Your task to perform on an android device: toggle wifi Image 0: 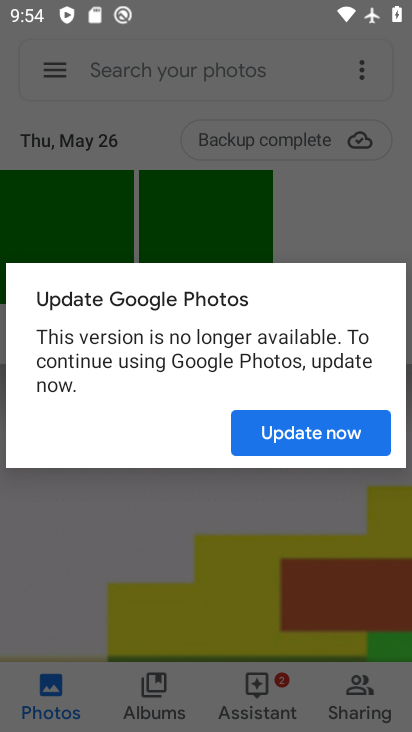
Step 0: press back button
Your task to perform on an android device: toggle wifi Image 1: 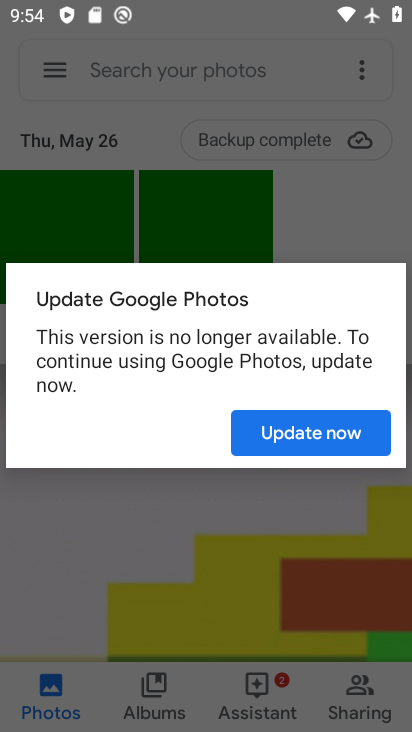
Step 1: press home button
Your task to perform on an android device: toggle wifi Image 2: 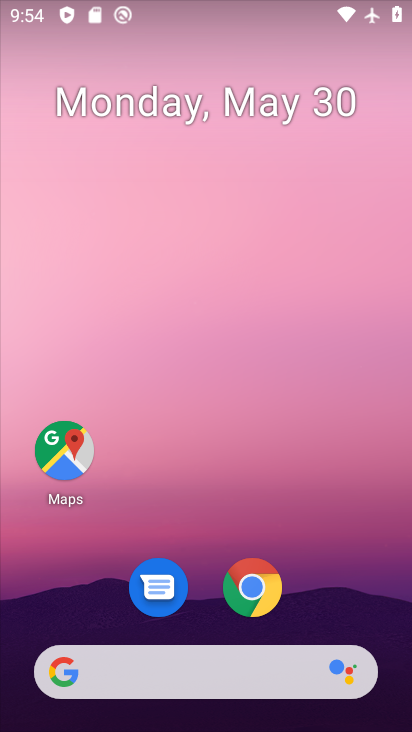
Step 2: drag from (310, 595) to (269, 54)
Your task to perform on an android device: toggle wifi Image 3: 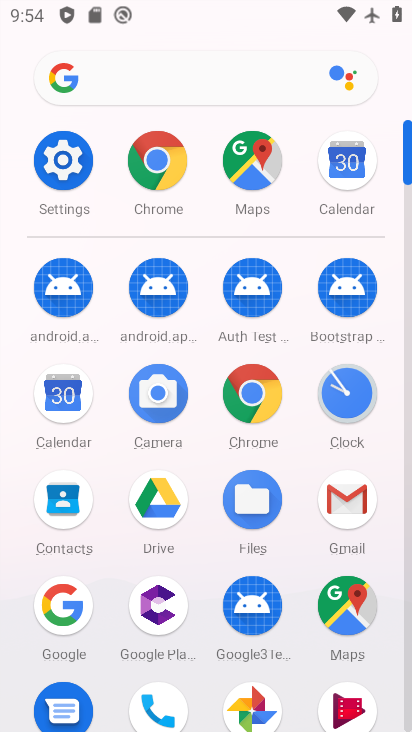
Step 3: click (59, 159)
Your task to perform on an android device: toggle wifi Image 4: 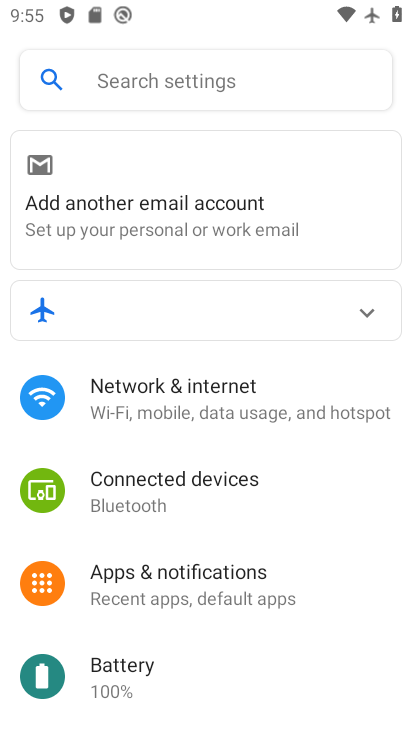
Step 4: click (246, 251)
Your task to perform on an android device: toggle wifi Image 5: 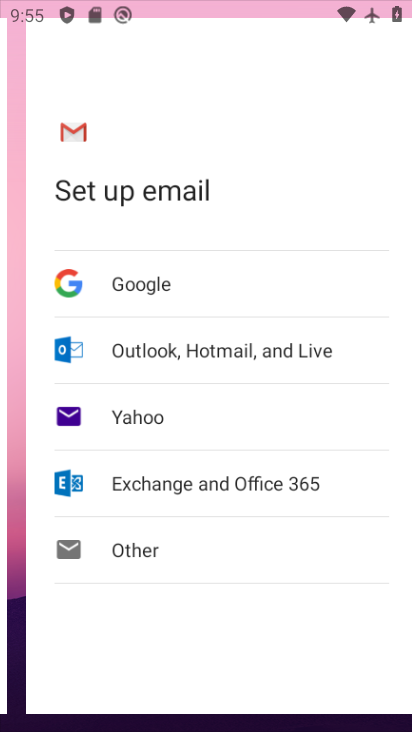
Step 5: click (229, 397)
Your task to perform on an android device: toggle wifi Image 6: 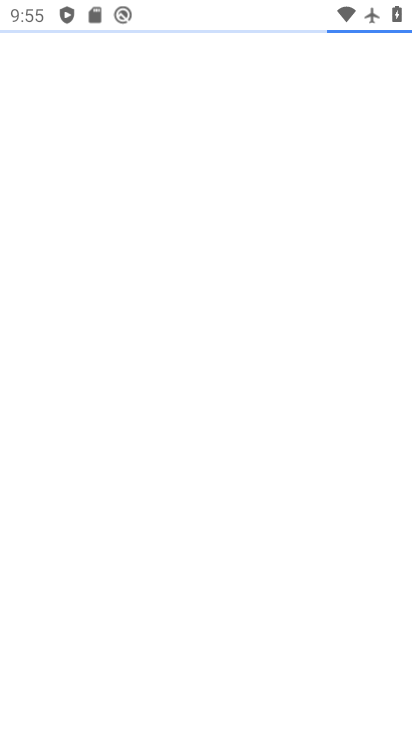
Step 6: press back button
Your task to perform on an android device: toggle wifi Image 7: 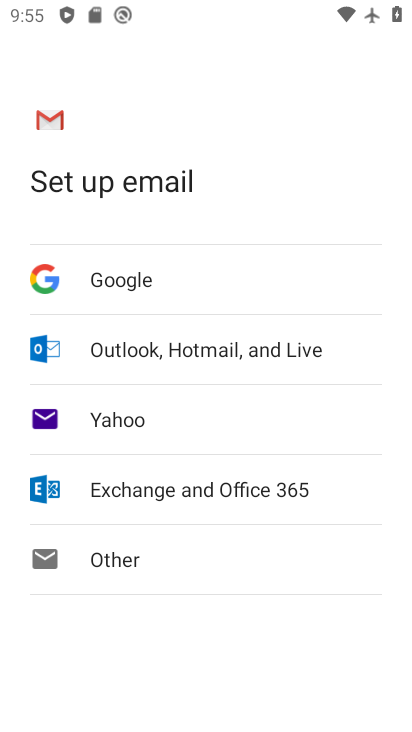
Step 7: press back button
Your task to perform on an android device: toggle wifi Image 8: 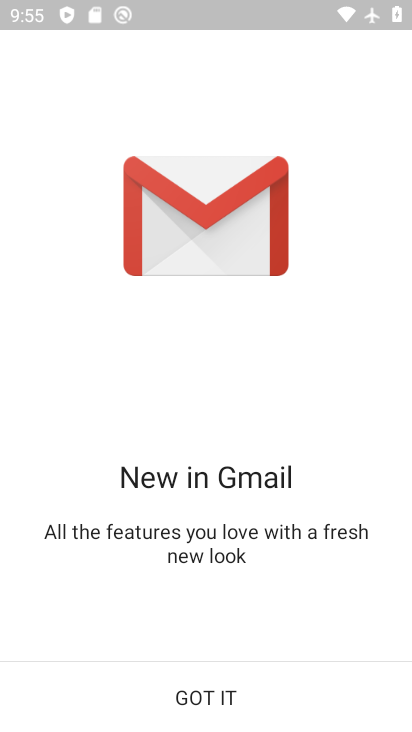
Step 8: press back button
Your task to perform on an android device: toggle wifi Image 9: 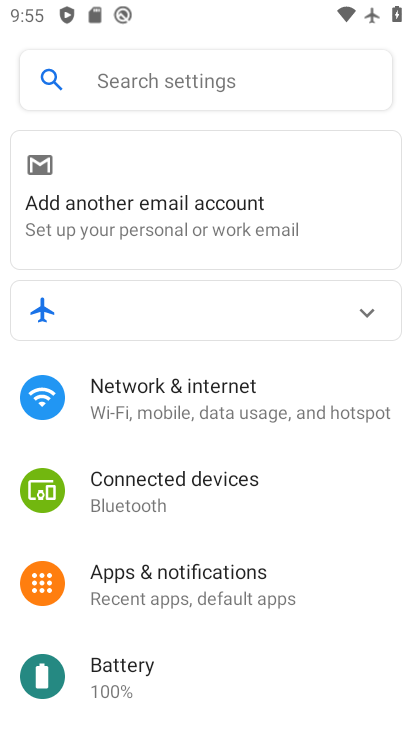
Step 9: click (200, 406)
Your task to perform on an android device: toggle wifi Image 10: 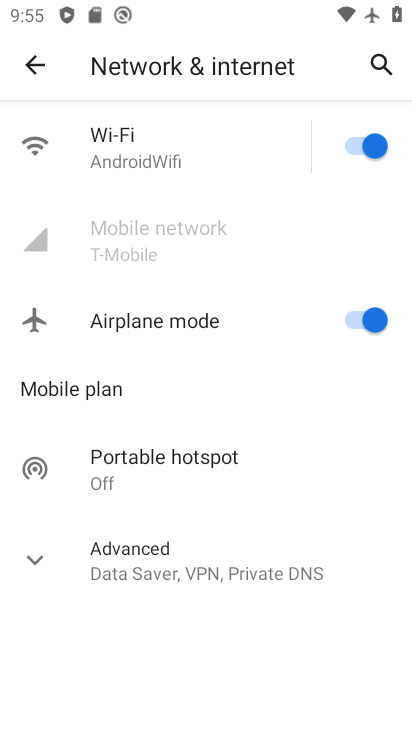
Step 10: click (360, 143)
Your task to perform on an android device: toggle wifi Image 11: 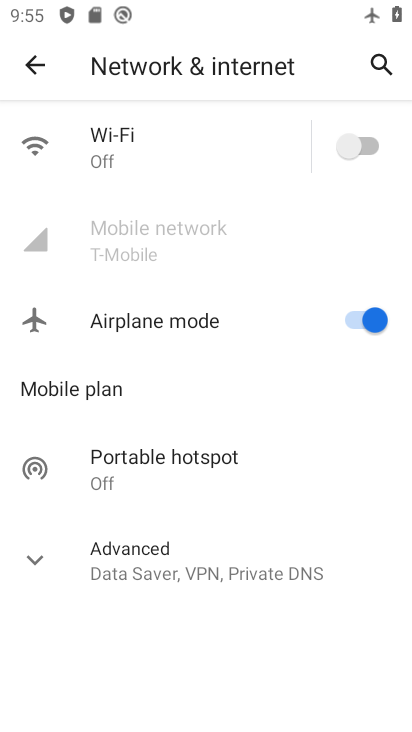
Step 11: click (28, 567)
Your task to perform on an android device: toggle wifi Image 12: 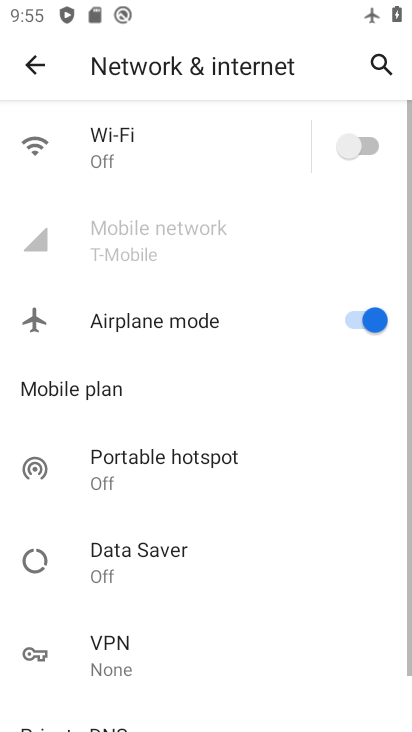
Step 12: task complete